Your task to perform on an android device: Open calendar and show me the second week of next month Image 0: 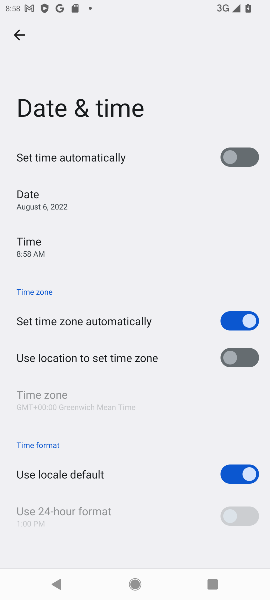
Step 0: press home button
Your task to perform on an android device: Open calendar and show me the second week of next month Image 1: 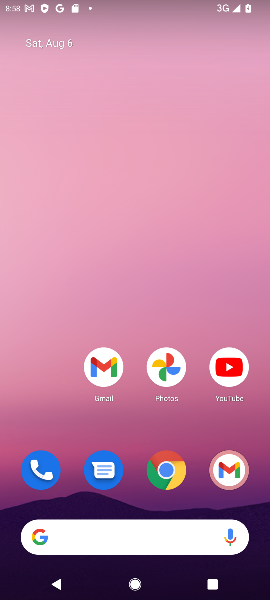
Step 1: drag from (164, 531) to (76, 7)
Your task to perform on an android device: Open calendar and show me the second week of next month Image 2: 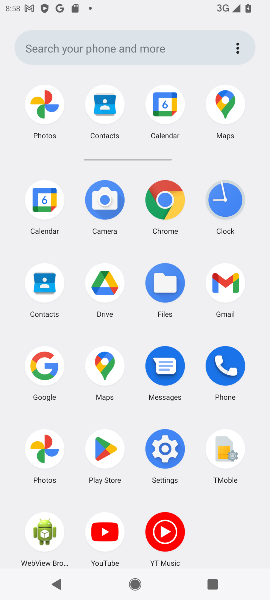
Step 2: click (50, 221)
Your task to perform on an android device: Open calendar and show me the second week of next month Image 3: 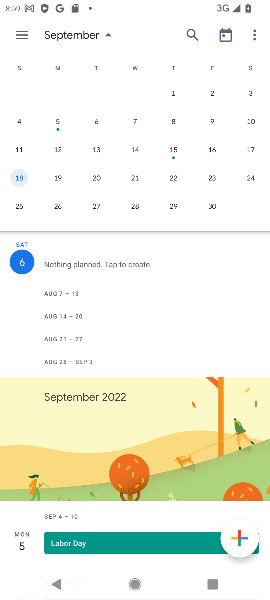
Step 3: click (19, 147)
Your task to perform on an android device: Open calendar and show me the second week of next month Image 4: 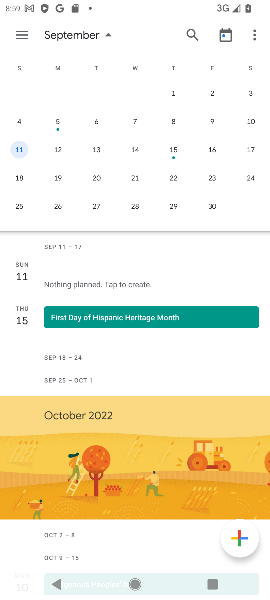
Step 4: task complete